Your task to perform on an android device: Is it going to rain this weekend? Image 0: 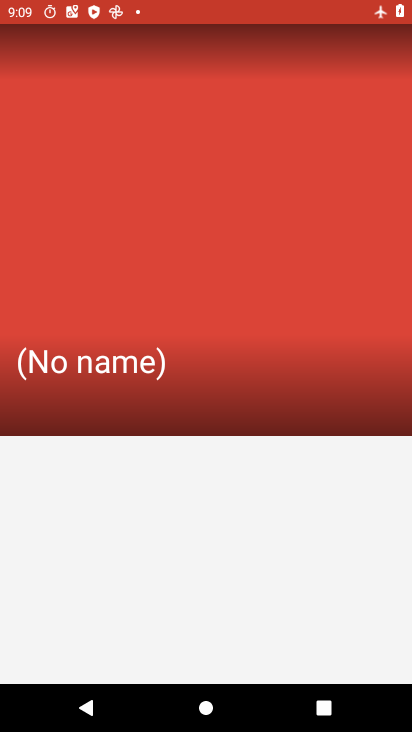
Step 0: drag from (248, 654) to (238, 341)
Your task to perform on an android device: Is it going to rain this weekend? Image 1: 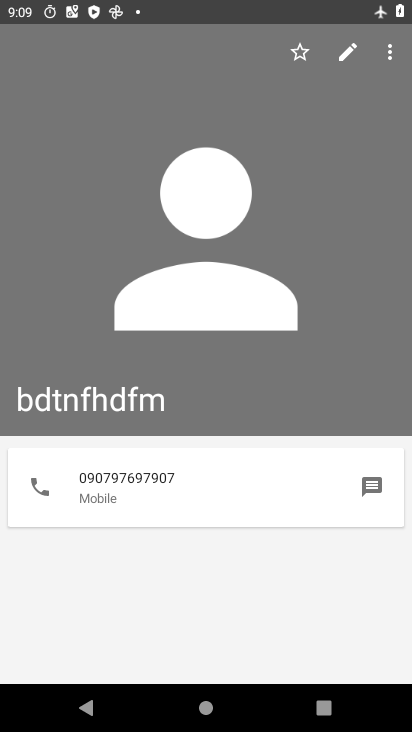
Step 1: press home button
Your task to perform on an android device: Is it going to rain this weekend? Image 2: 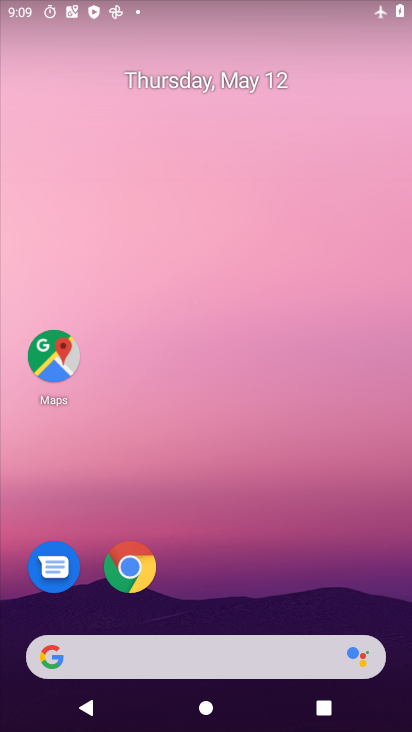
Step 2: drag from (215, 633) to (214, 259)
Your task to perform on an android device: Is it going to rain this weekend? Image 3: 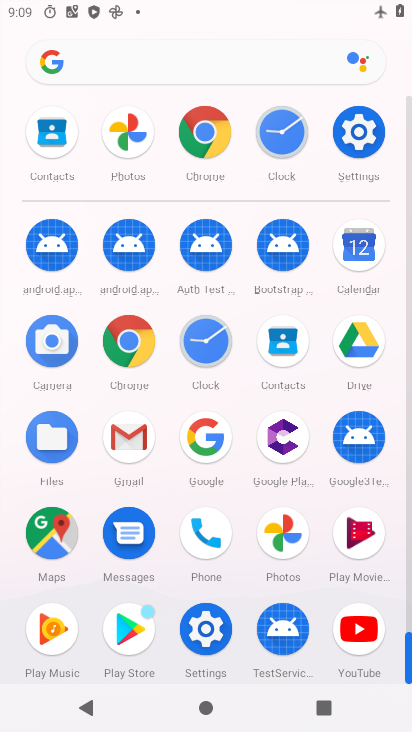
Step 3: click (212, 453)
Your task to perform on an android device: Is it going to rain this weekend? Image 4: 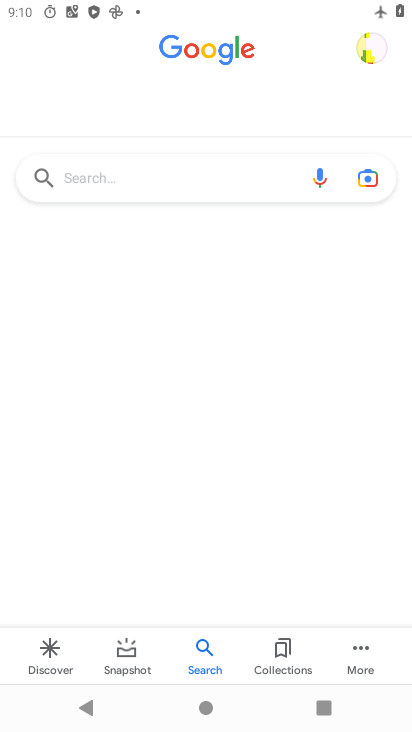
Step 4: click (147, 181)
Your task to perform on an android device: Is it going to rain this weekend? Image 5: 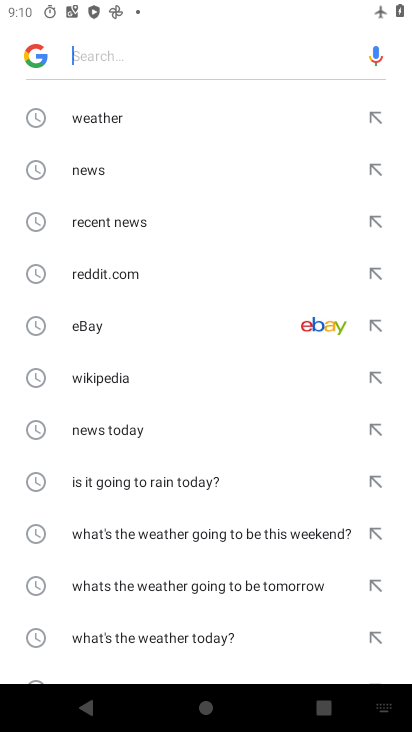
Step 5: click (174, 109)
Your task to perform on an android device: Is it going to rain this weekend? Image 6: 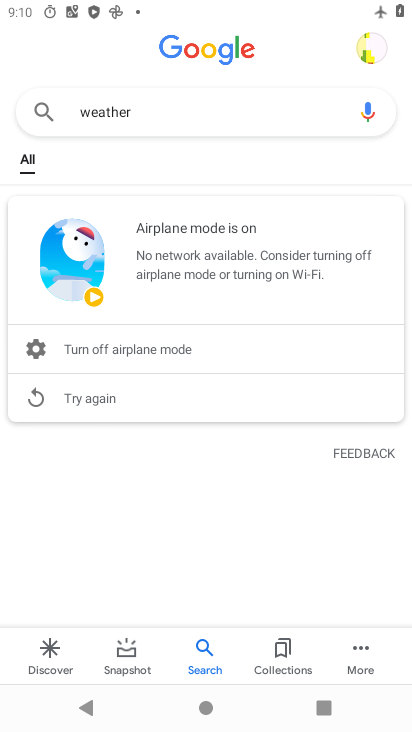
Step 6: task complete